Your task to perform on an android device: What's the weather today? Image 0: 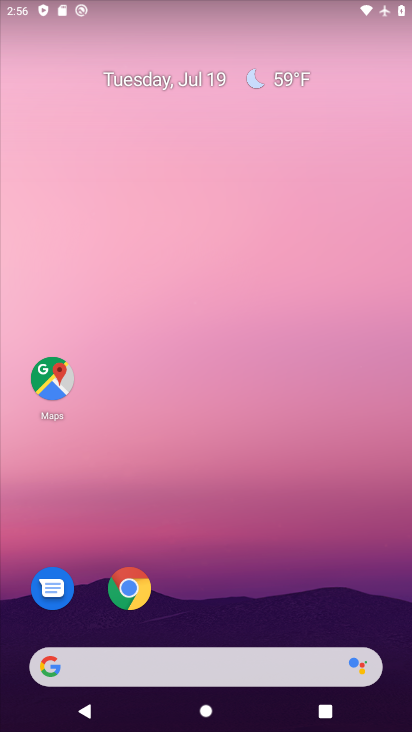
Step 0: press home button
Your task to perform on an android device: What's the weather today? Image 1: 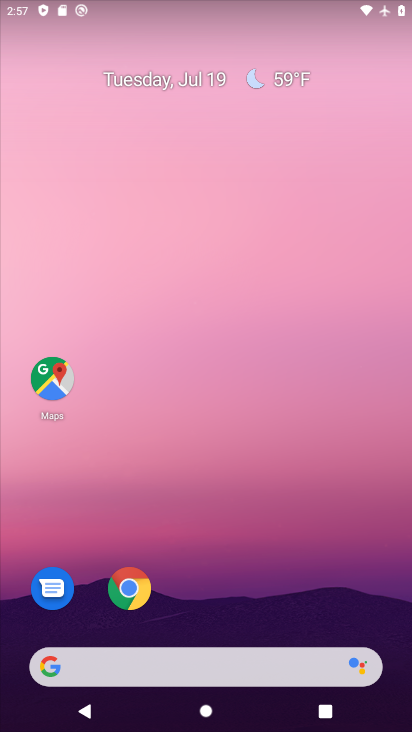
Step 1: click (51, 674)
Your task to perform on an android device: What's the weather today? Image 2: 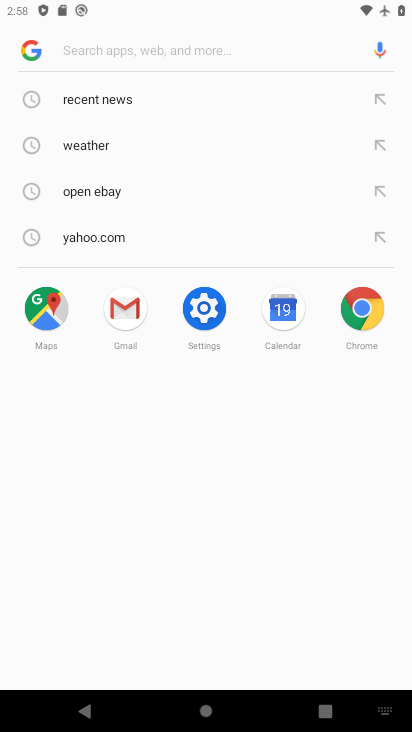
Step 2: type " weather today?"
Your task to perform on an android device: What's the weather today? Image 3: 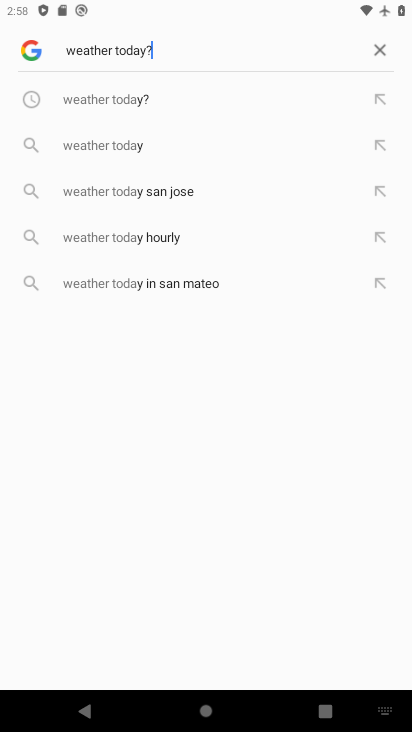
Step 3: press enter
Your task to perform on an android device: What's the weather today? Image 4: 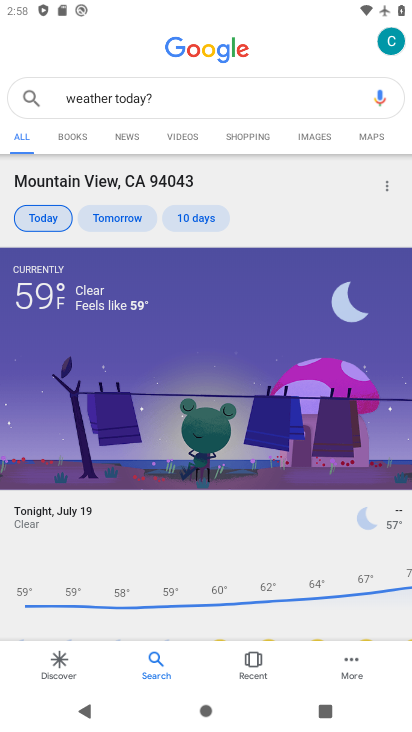
Step 4: task complete